Your task to perform on an android device: make emails show in primary in the gmail app Image 0: 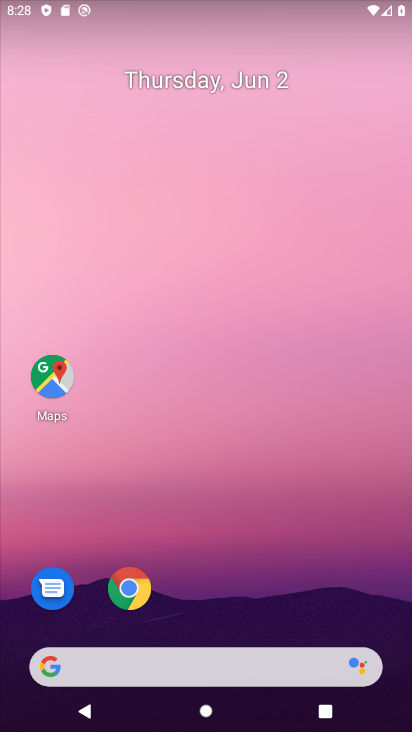
Step 0: drag from (253, 622) to (226, 271)
Your task to perform on an android device: make emails show in primary in the gmail app Image 1: 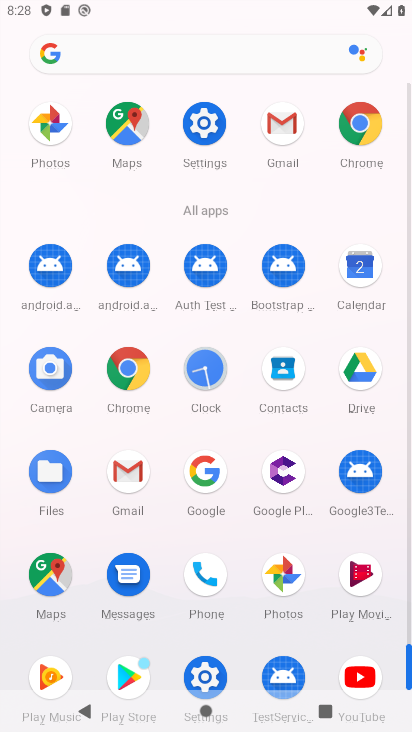
Step 1: click (286, 109)
Your task to perform on an android device: make emails show in primary in the gmail app Image 2: 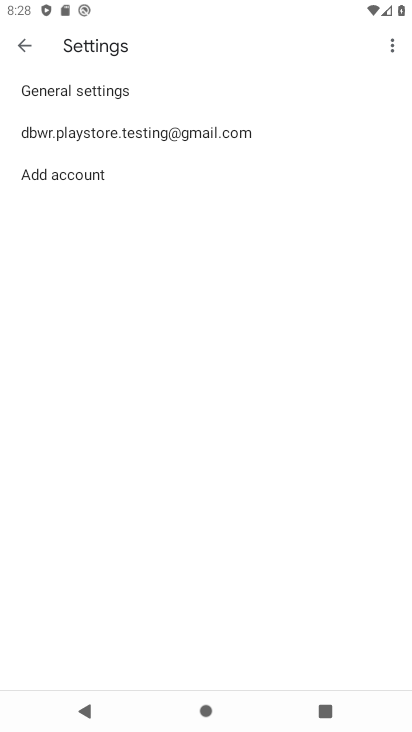
Step 2: click (30, 53)
Your task to perform on an android device: make emails show in primary in the gmail app Image 3: 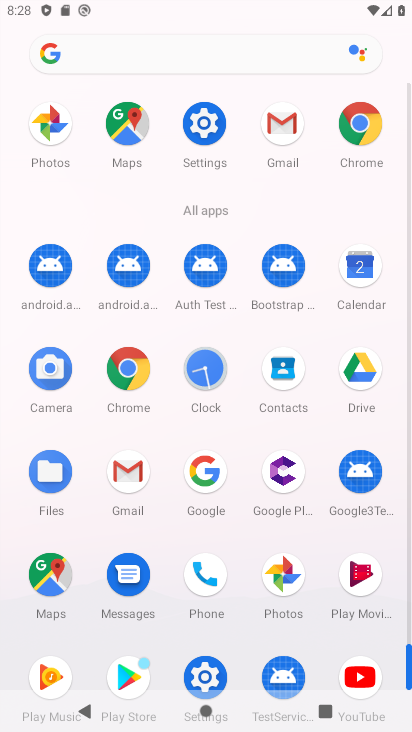
Step 3: click (292, 130)
Your task to perform on an android device: make emails show in primary in the gmail app Image 4: 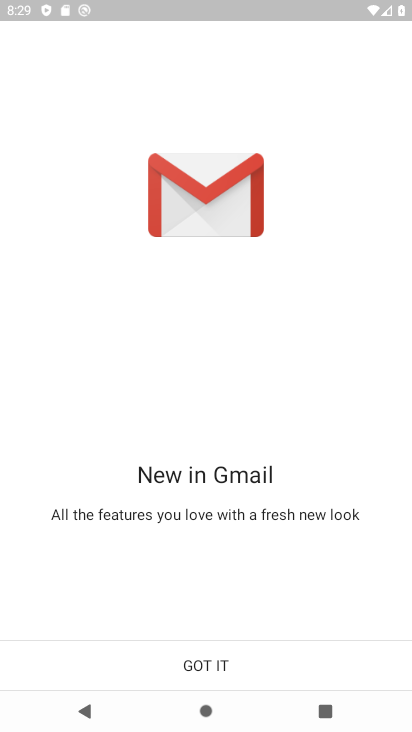
Step 4: click (213, 661)
Your task to perform on an android device: make emails show in primary in the gmail app Image 5: 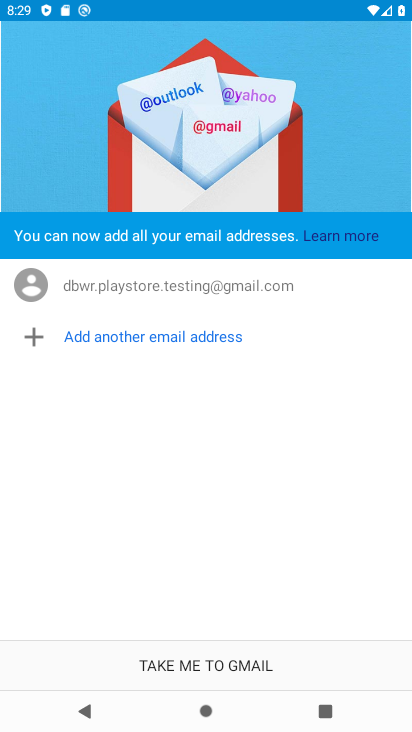
Step 5: click (213, 661)
Your task to perform on an android device: make emails show in primary in the gmail app Image 6: 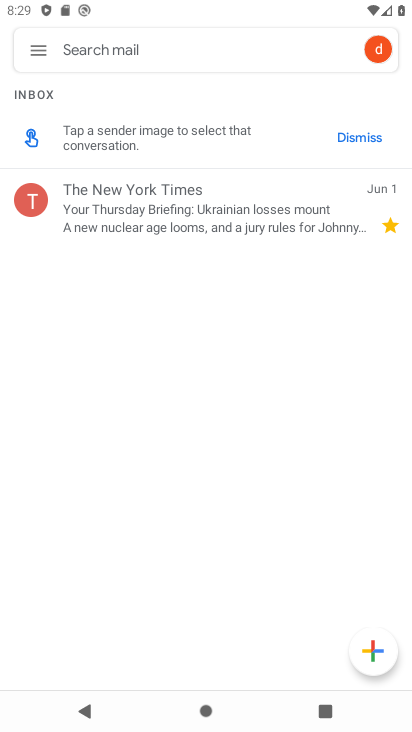
Step 6: click (41, 53)
Your task to perform on an android device: make emails show in primary in the gmail app Image 7: 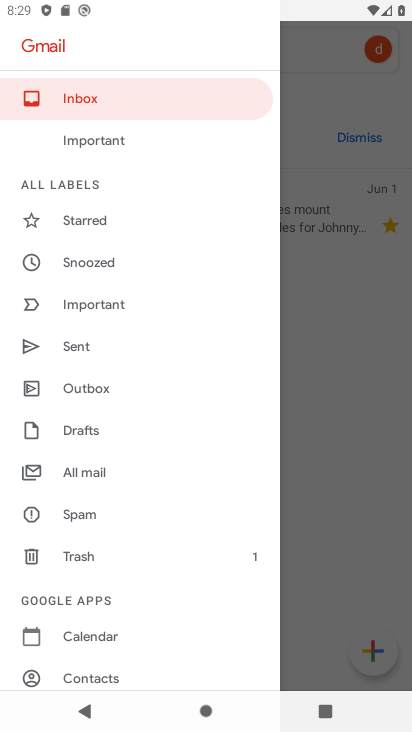
Step 7: drag from (88, 600) to (107, 232)
Your task to perform on an android device: make emails show in primary in the gmail app Image 8: 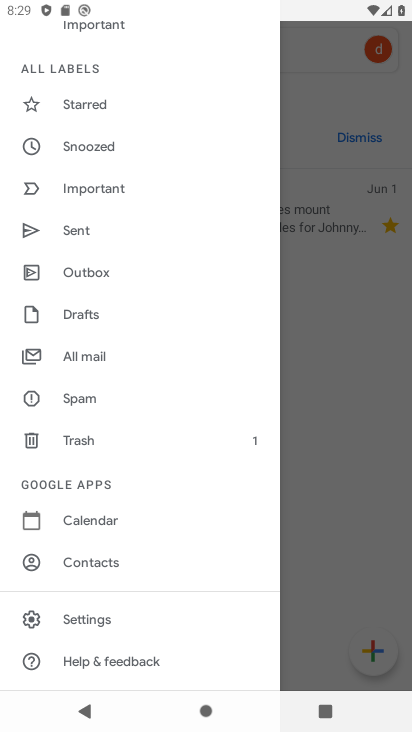
Step 8: click (85, 613)
Your task to perform on an android device: make emails show in primary in the gmail app Image 9: 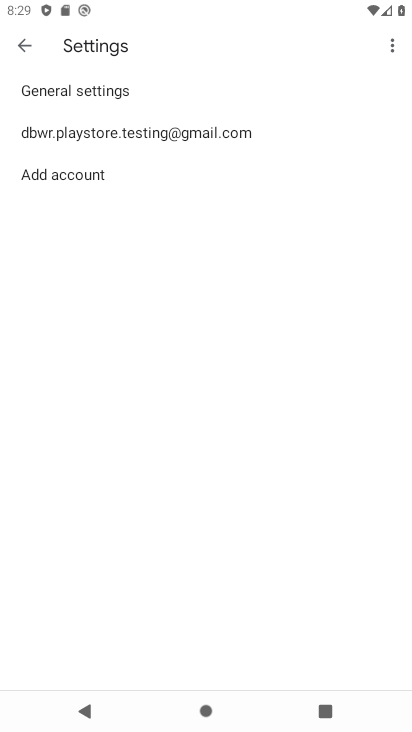
Step 9: click (82, 135)
Your task to perform on an android device: make emails show in primary in the gmail app Image 10: 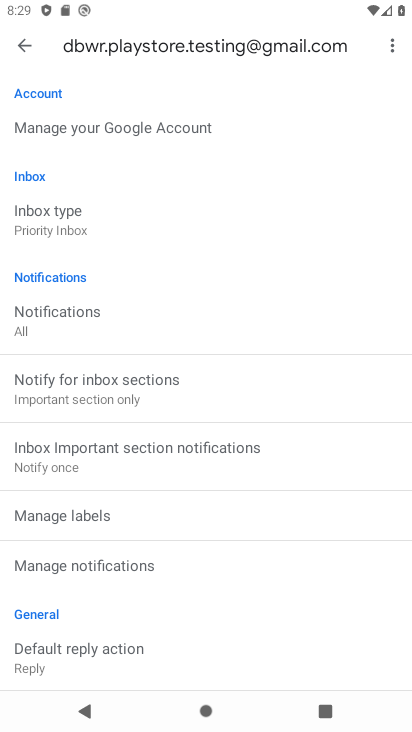
Step 10: click (81, 222)
Your task to perform on an android device: make emails show in primary in the gmail app Image 11: 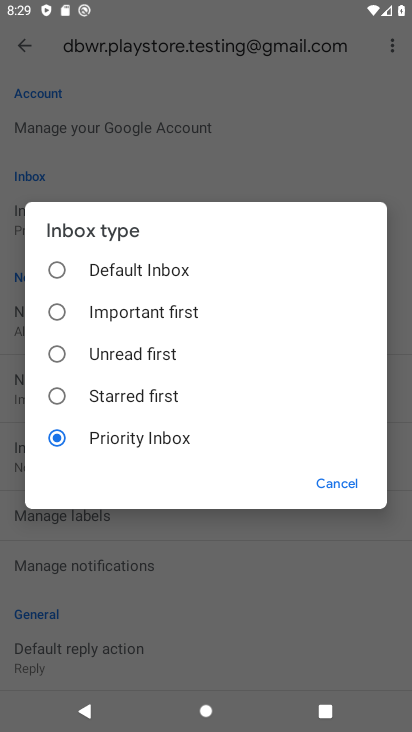
Step 11: click (78, 260)
Your task to perform on an android device: make emails show in primary in the gmail app Image 12: 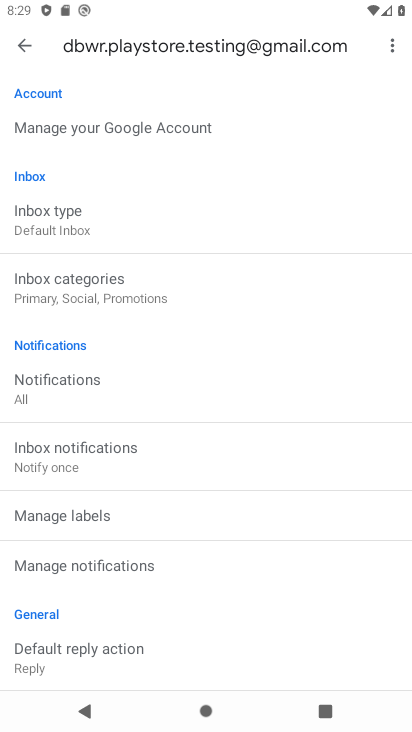
Step 12: click (110, 227)
Your task to perform on an android device: make emails show in primary in the gmail app Image 13: 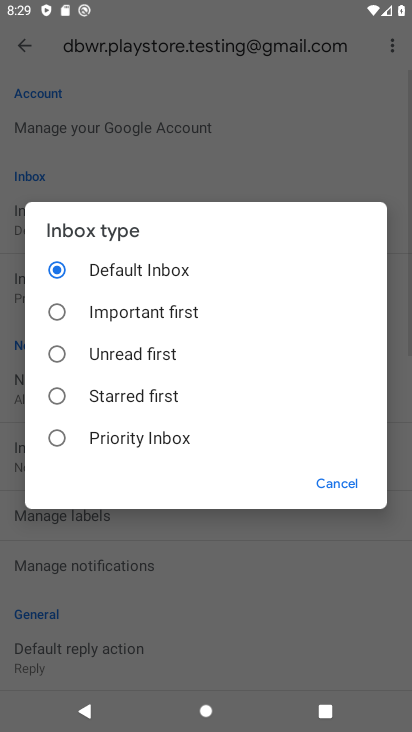
Step 13: click (102, 262)
Your task to perform on an android device: make emails show in primary in the gmail app Image 14: 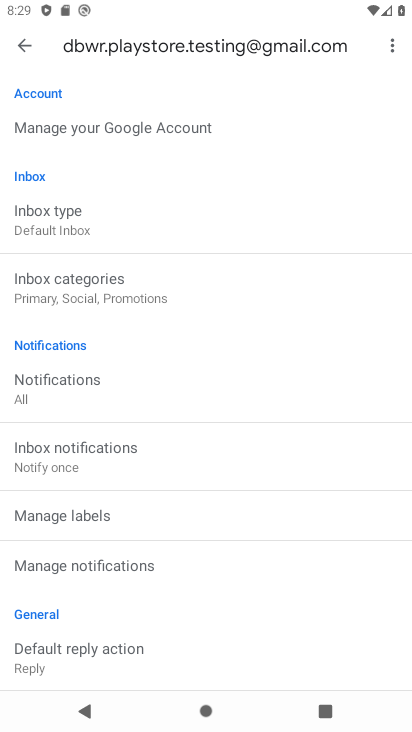
Step 14: click (129, 285)
Your task to perform on an android device: make emails show in primary in the gmail app Image 15: 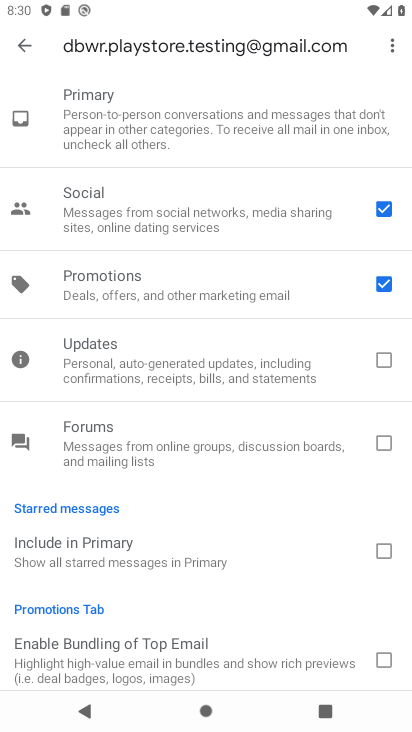
Step 15: click (388, 282)
Your task to perform on an android device: make emails show in primary in the gmail app Image 16: 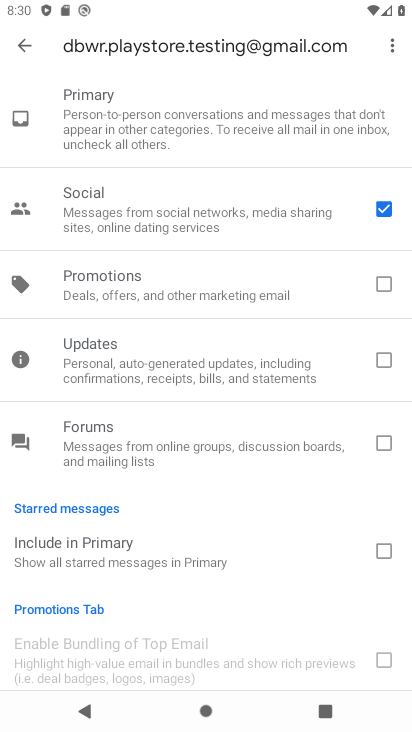
Step 16: click (386, 213)
Your task to perform on an android device: make emails show in primary in the gmail app Image 17: 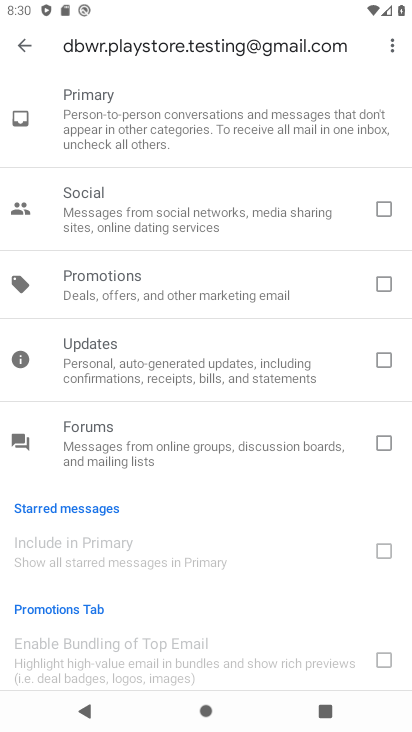
Step 17: task complete